Your task to perform on an android device: turn on the 24-hour format for clock Image 0: 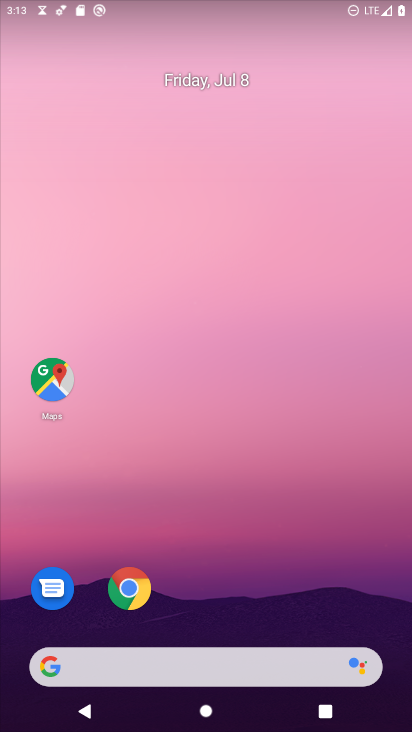
Step 0: click (204, 38)
Your task to perform on an android device: turn on the 24-hour format for clock Image 1: 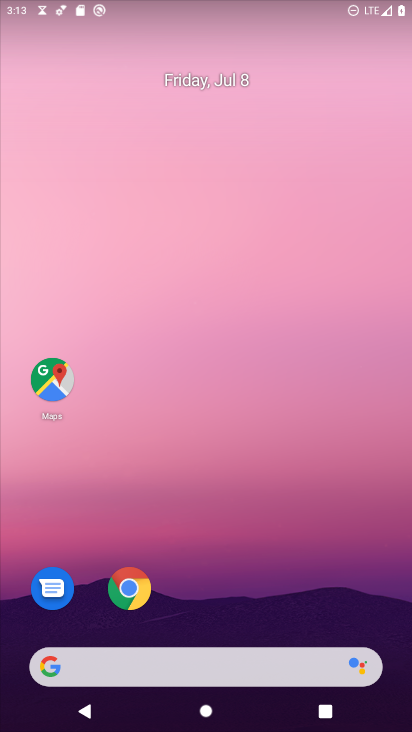
Step 1: drag from (176, 463) to (176, 139)
Your task to perform on an android device: turn on the 24-hour format for clock Image 2: 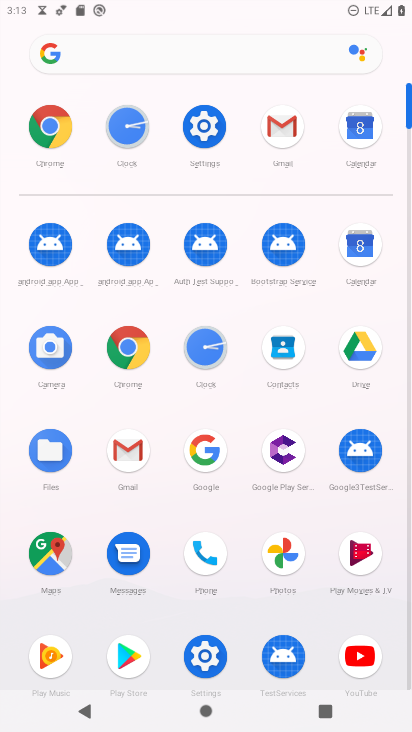
Step 2: click (207, 361)
Your task to perform on an android device: turn on the 24-hour format for clock Image 3: 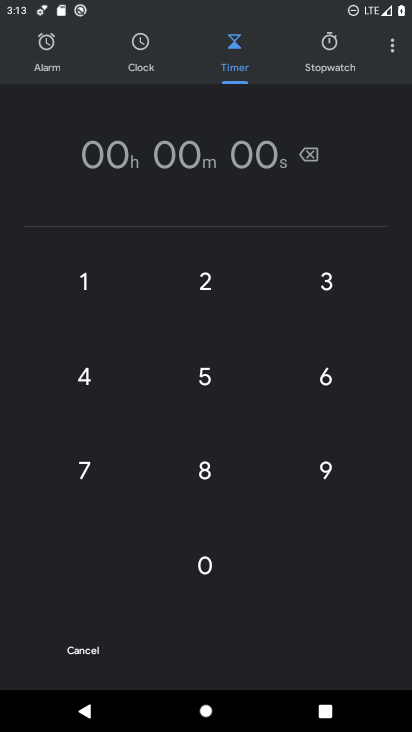
Step 3: click (393, 49)
Your task to perform on an android device: turn on the 24-hour format for clock Image 4: 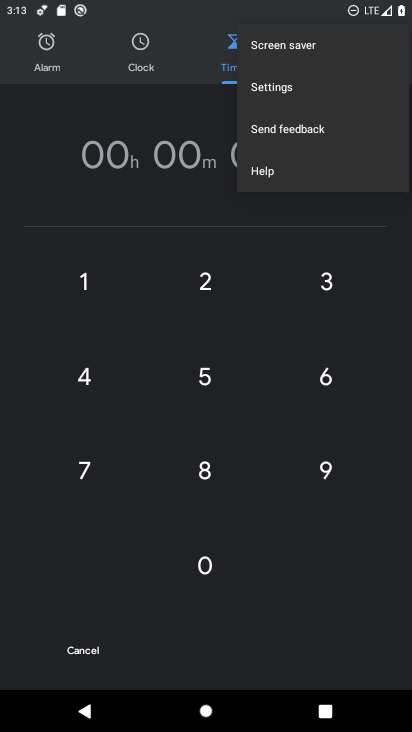
Step 4: click (290, 86)
Your task to perform on an android device: turn on the 24-hour format for clock Image 5: 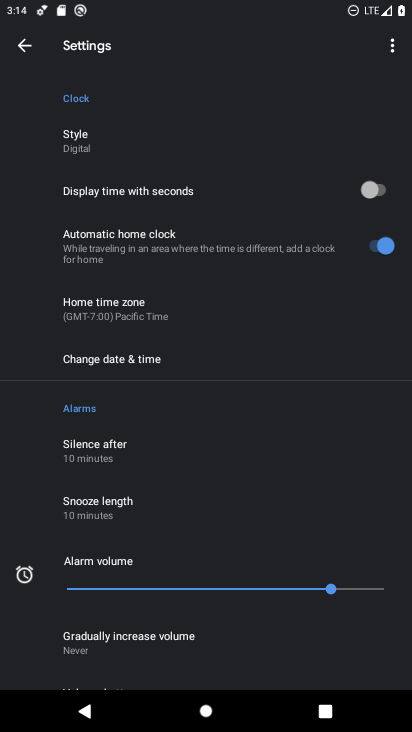
Step 5: click (140, 363)
Your task to perform on an android device: turn on the 24-hour format for clock Image 6: 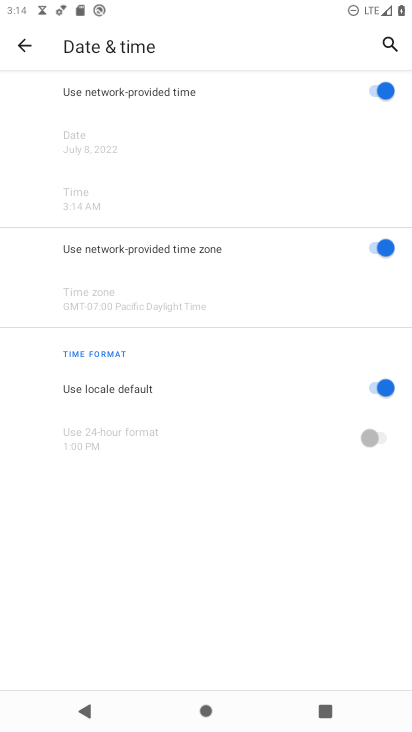
Step 6: click (372, 391)
Your task to perform on an android device: turn on the 24-hour format for clock Image 7: 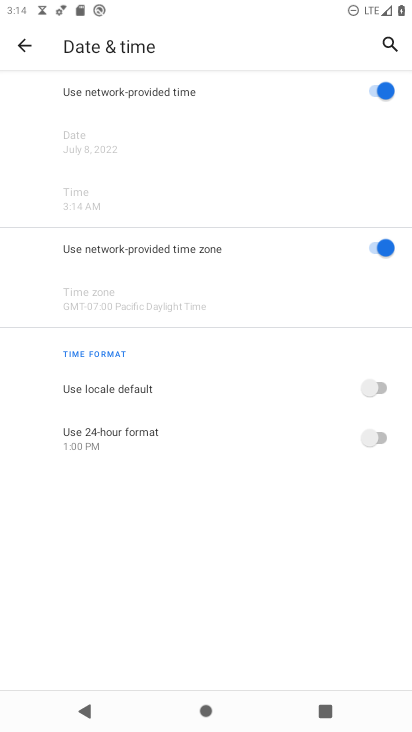
Step 7: click (383, 437)
Your task to perform on an android device: turn on the 24-hour format for clock Image 8: 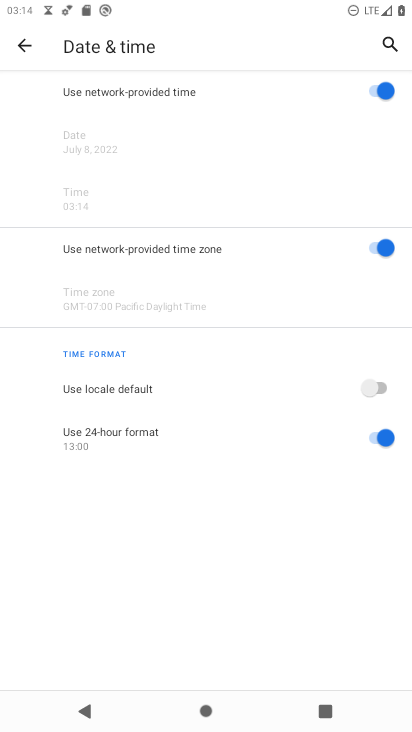
Step 8: task complete